Your task to perform on an android device: turn on location history Image 0: 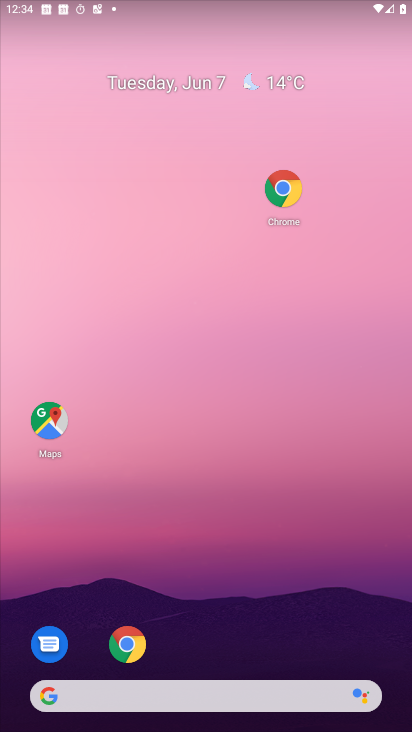
Step 0: drag from (293, 574) to (211, 5)
Your task to perform on an android device: turn on location history Image 1: 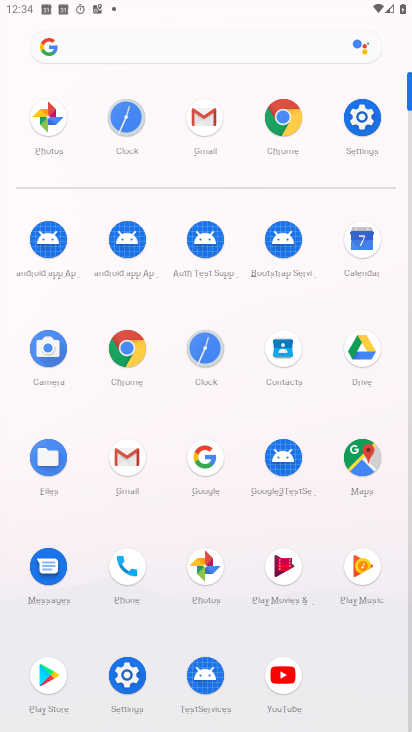
Step 1: click (371, 121)
Your task to perform on an android device: turn on location history Image 2: 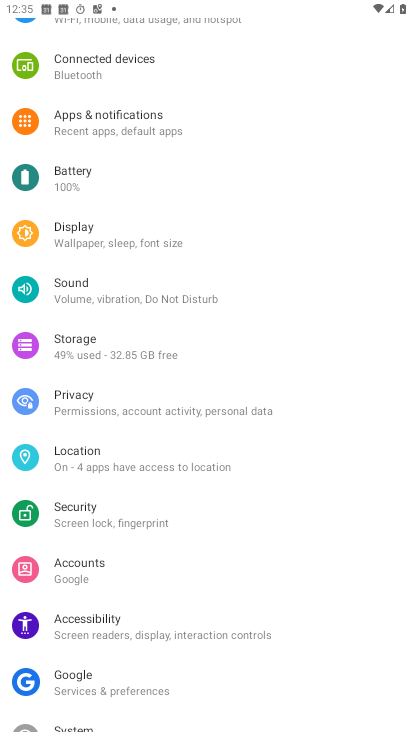
Step 2: click (118, 473)
Your task to perform on an android device: turn on location history Image 3: 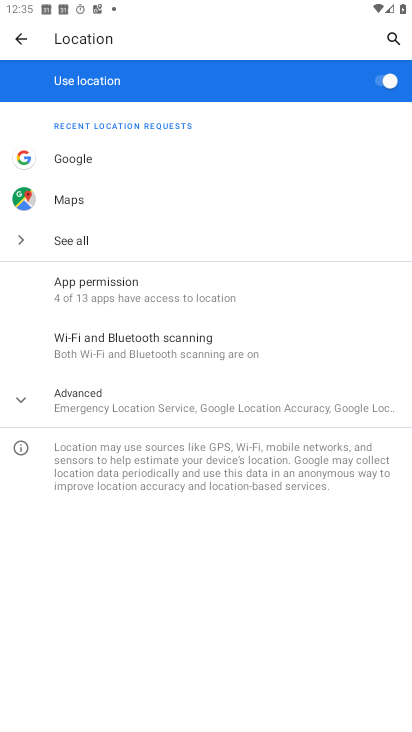
Step 3: click (113, 387)
Your task to perform on an android device: turn on location history Image 4: 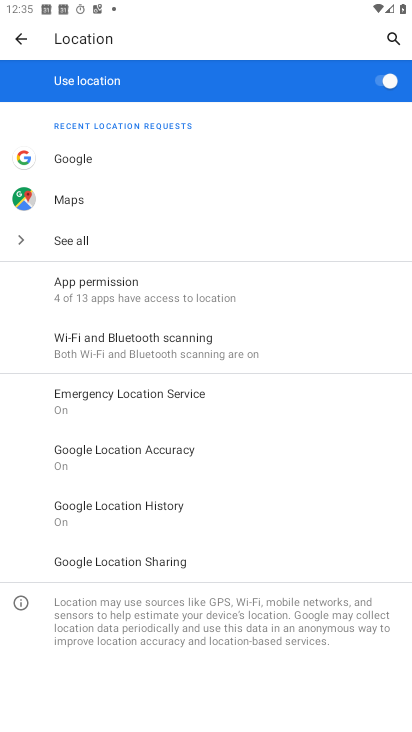
Step 4: click (151, 501)
Your task to perform on an android device: turn on location history Image 5: 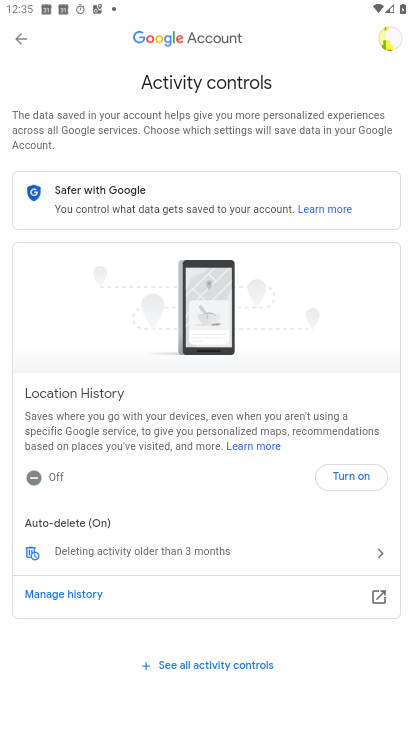
Step 5: click (359, 473)
Your task to perform on an android device: turn on location history Image 6: 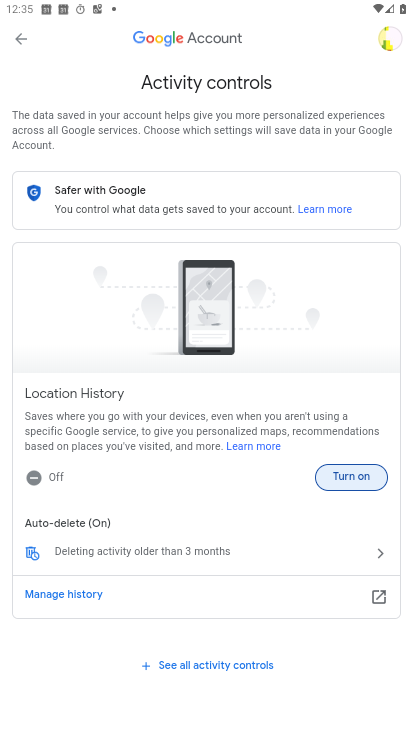
Step 6: click (344, 477)
Your task to perform on an android device: turn on location history Image 7: 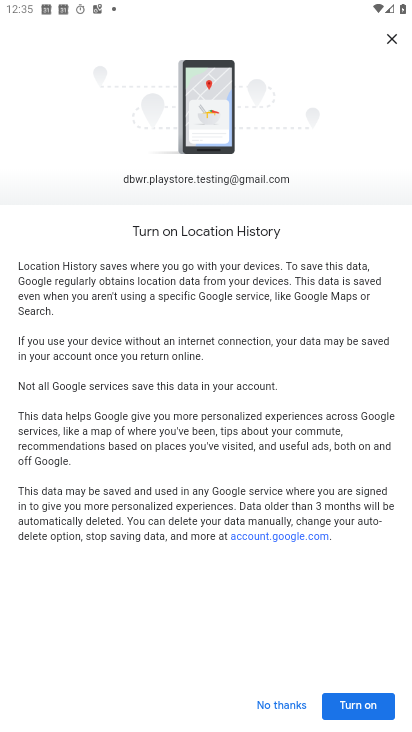
Step 7: click (369, 718)
Your task to perform on an android device: turn on location history Image 8: 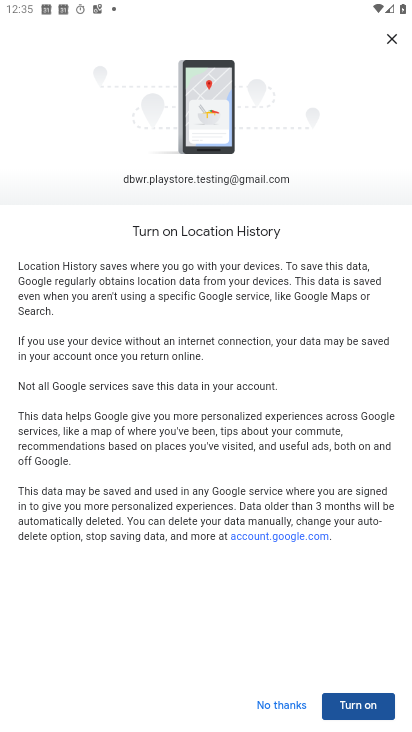
Step 8: click (373, 709)
Your task to perform on an android device: turn on location history Image 9: 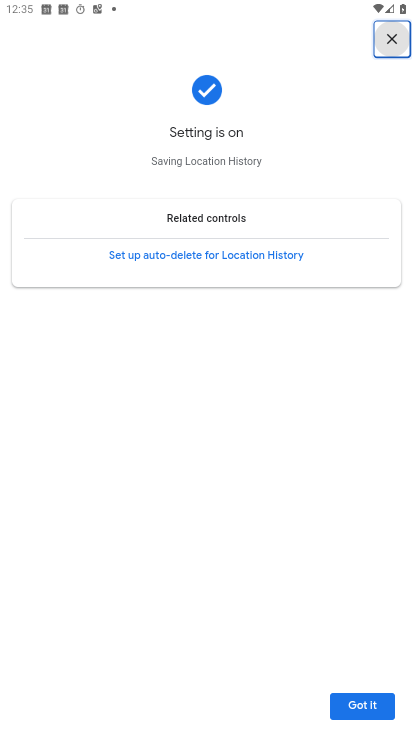
Step 9: task complete